Your task to perform on an android device: open app "TextNow: Call + Text Unlimited" Image 0: 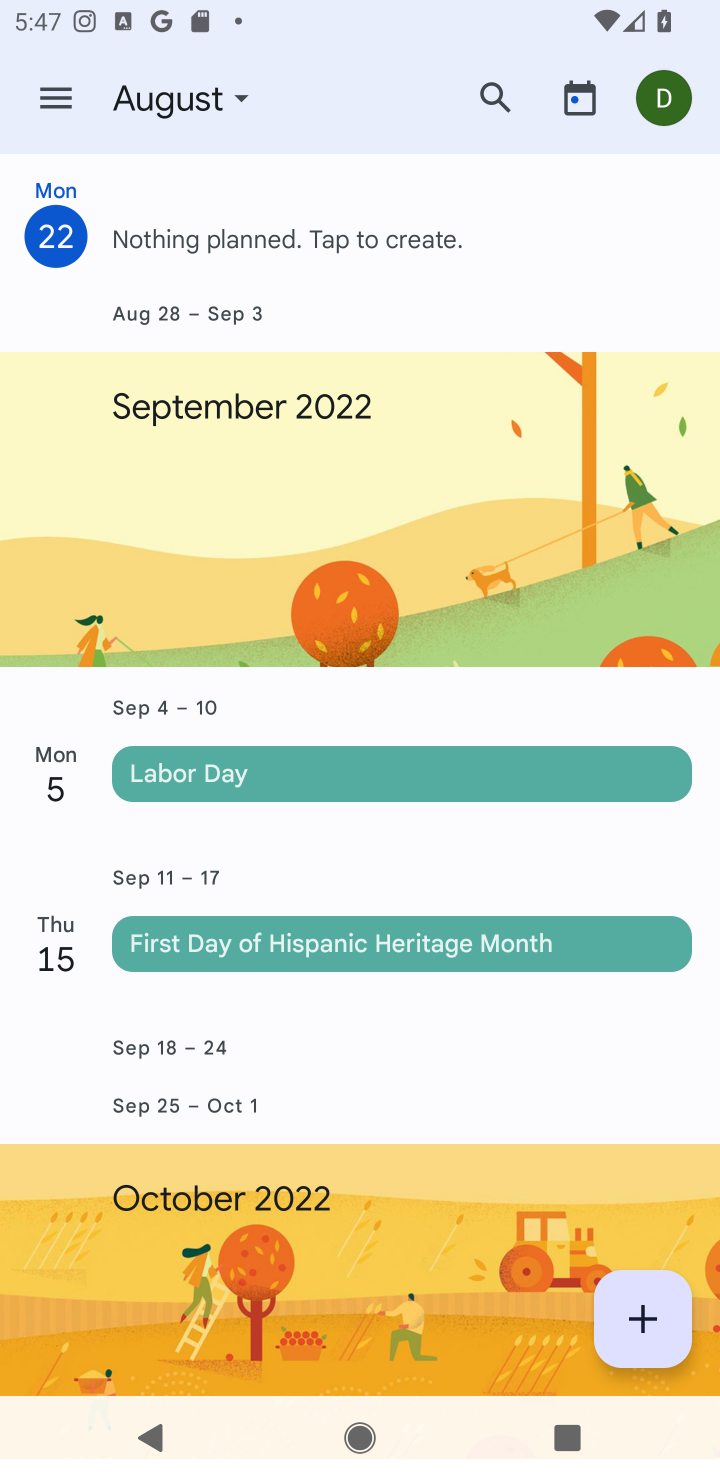
Step 0: press home button
Your task to perform on an android device: open app "TextNow: Call + Text Unlimited" Image 1: 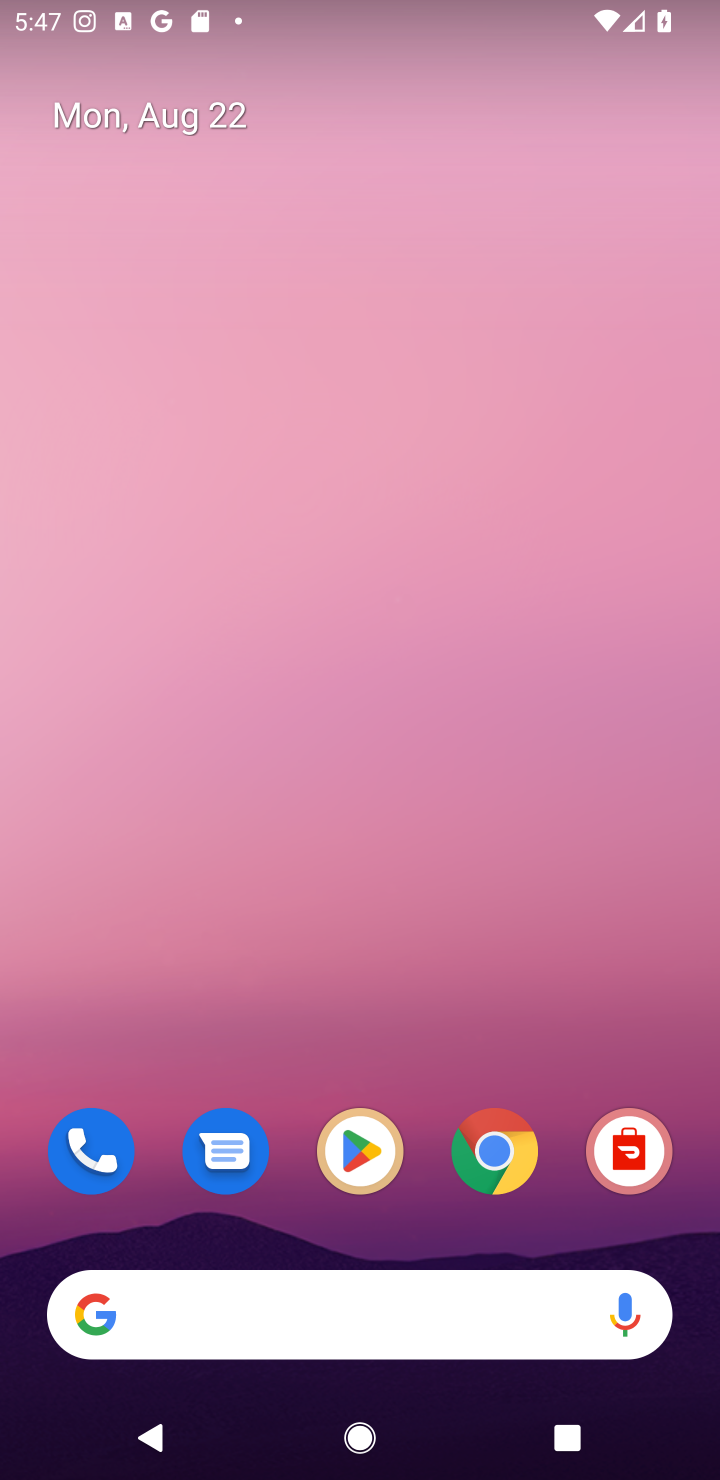
Step 1: click (352, 1155)
Your task to perform on an android device: open app "TextNow: Call + Text Unlimited" Image 2: 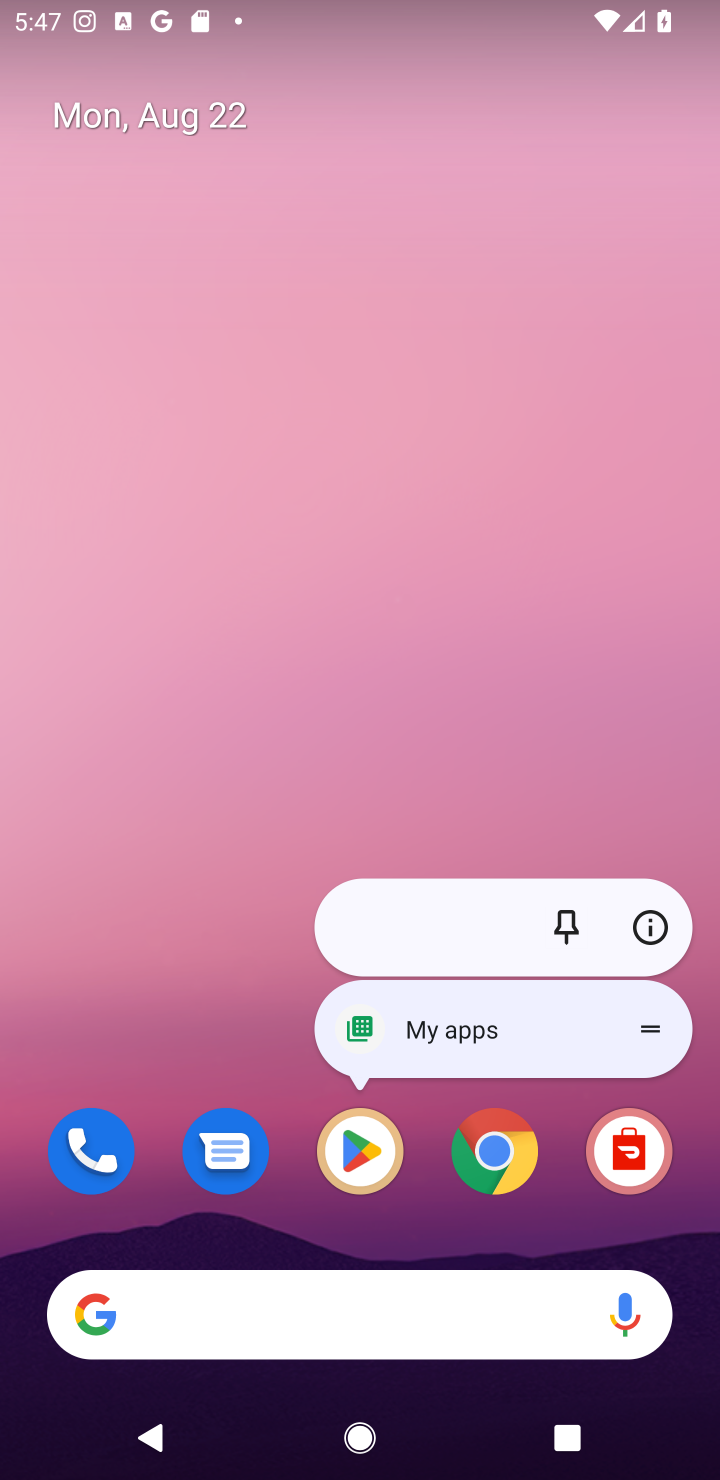
Step 2: click (338, 1161)
Your task to perform on an android device: open app "TextNow: Call + Text Unlimited" Image 3: 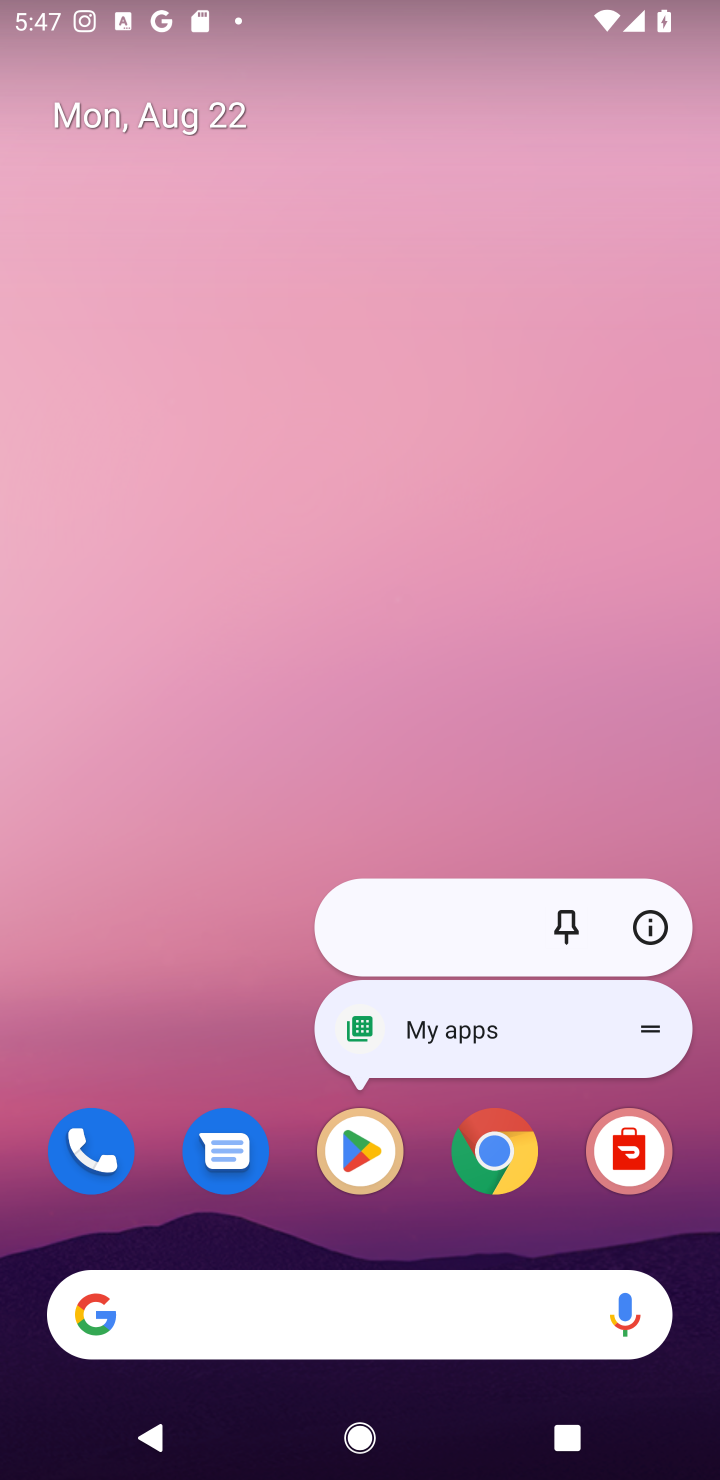
Step 3: click (350, 1157)
Your task to perform on an android device: open app "TextNow: Call + Text Unlimited" Image 4: 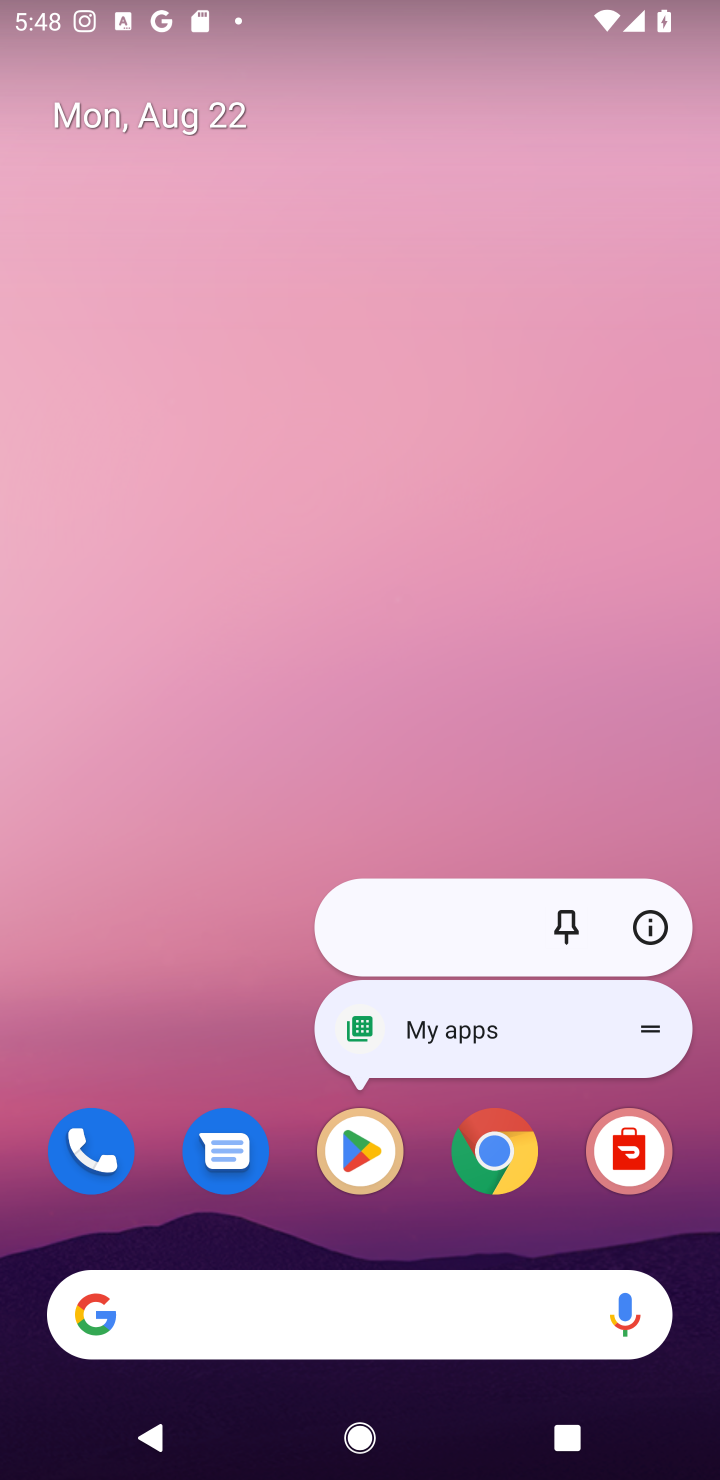
Step 4: click (350, 1159)
Your task to perform on an android device: open app "TextNow: Call + Text Unlimited" Image 5: 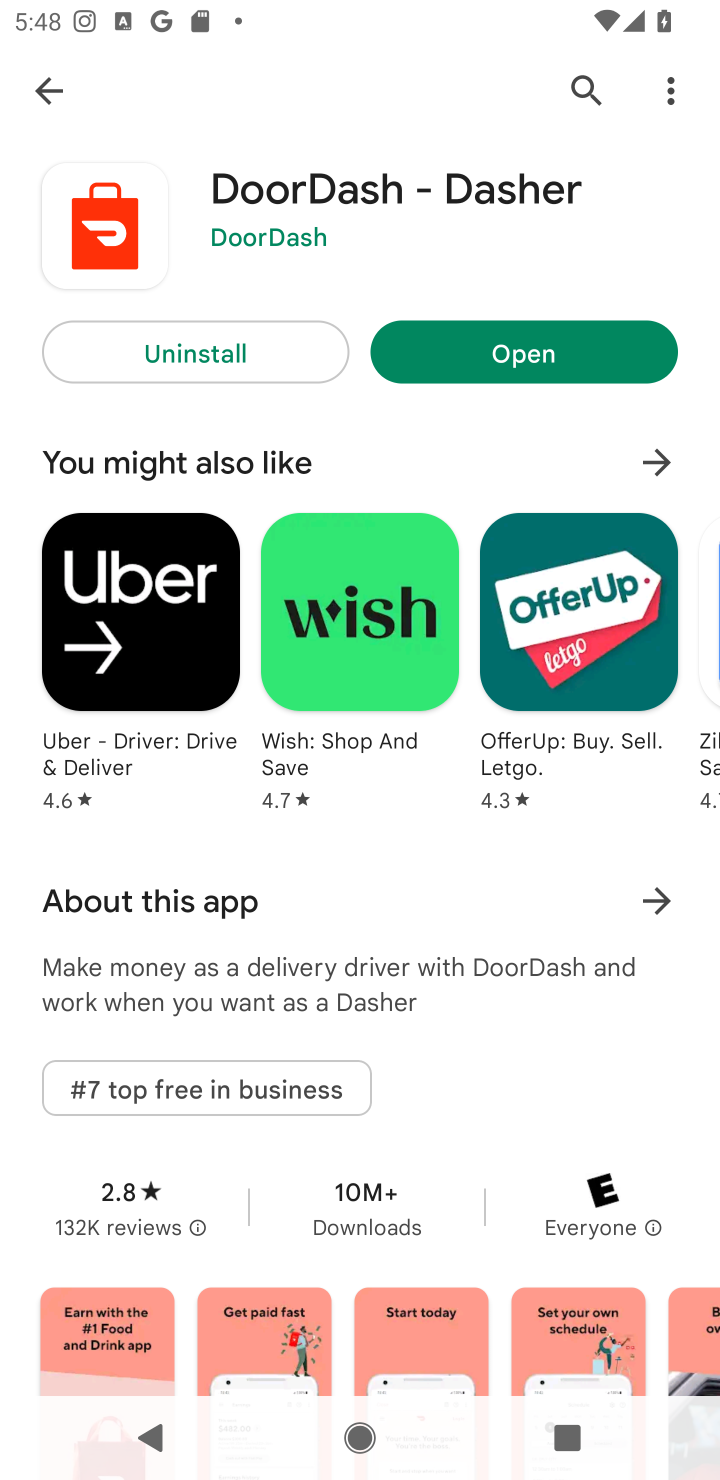
Step 5: click (579, 82)
Your task to perform on an android device: open app "TextNow: Call + Text Unlimited" Image 6: 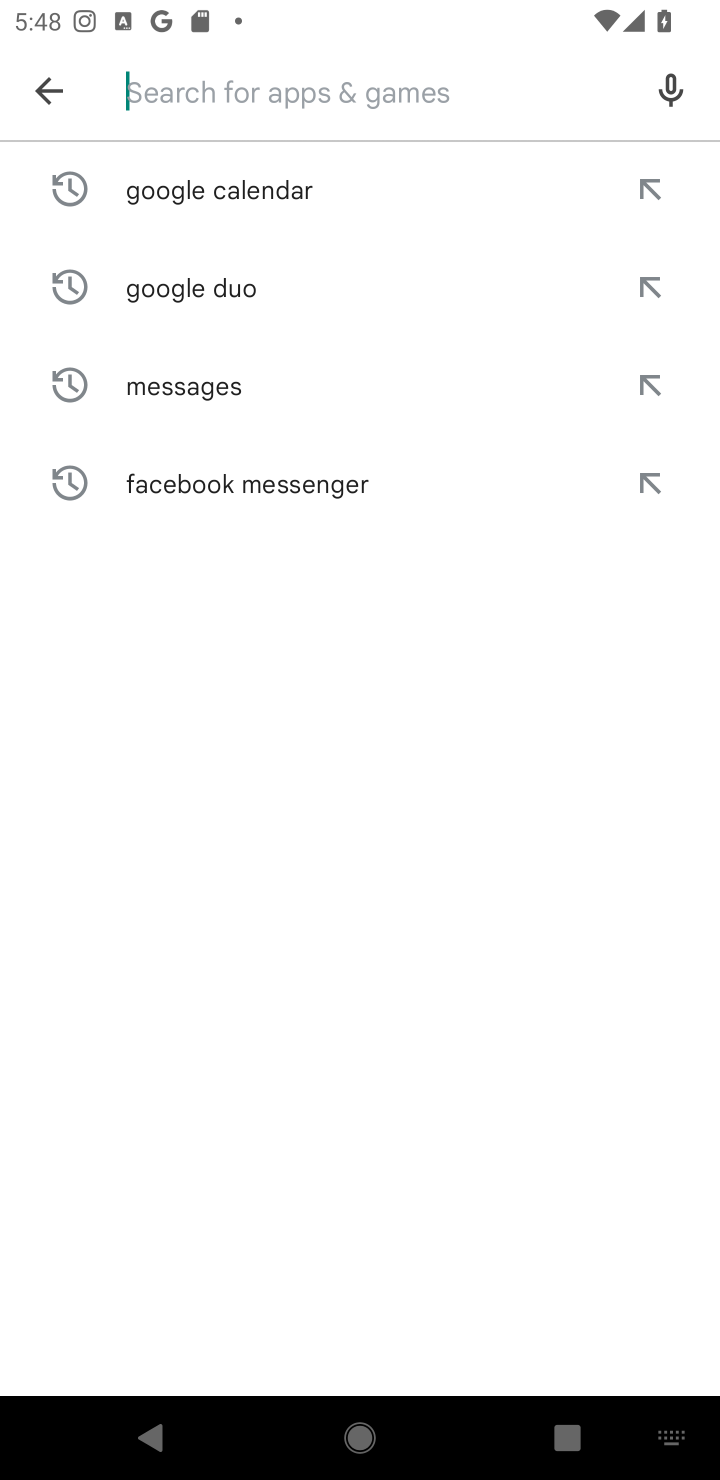
Step 6: type "TextNow: Call + Text Unlimited"
Your task to perform on an android device: open app "TextNow: Call + Text Unlimited" Image 7: 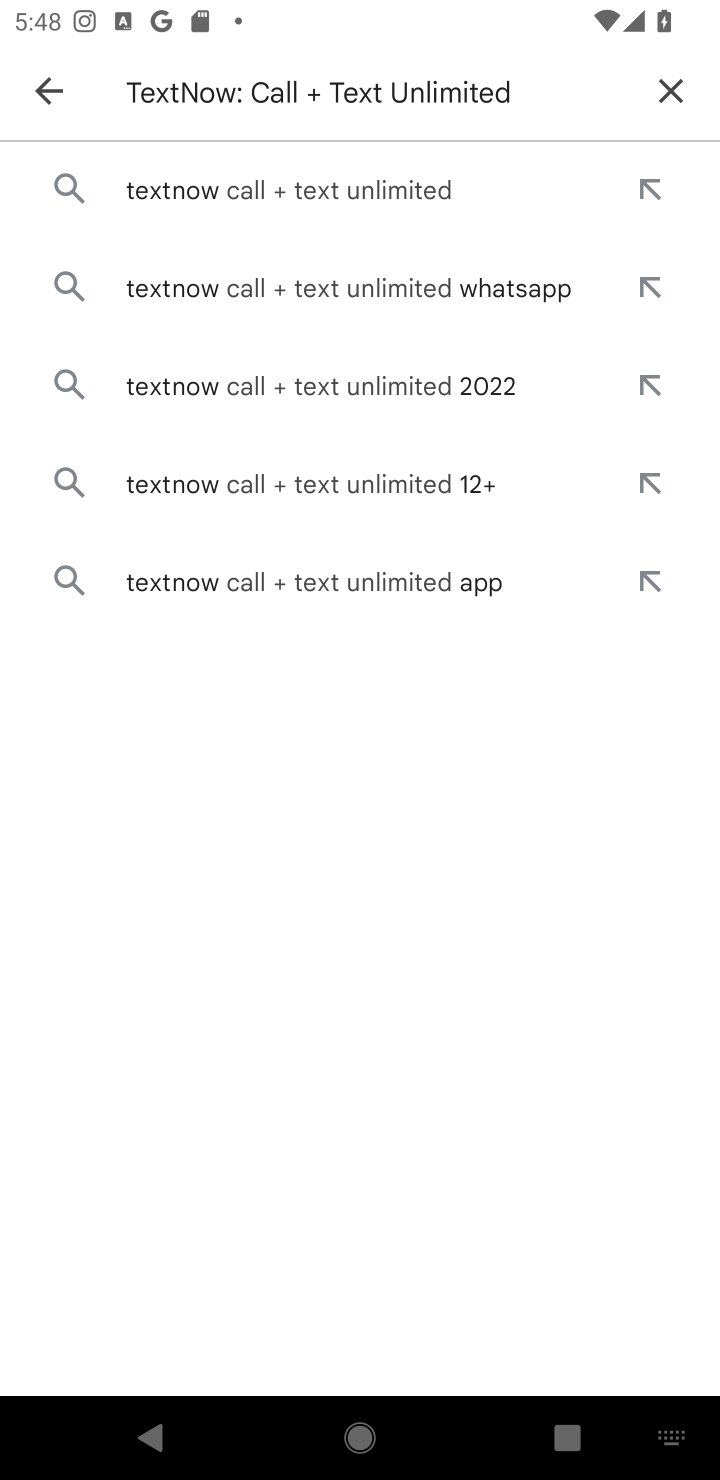
Step 7: click (362, 189)
Your task to perform on an android device: open app "TextNow: Call + Text Unlimited" Image 8: 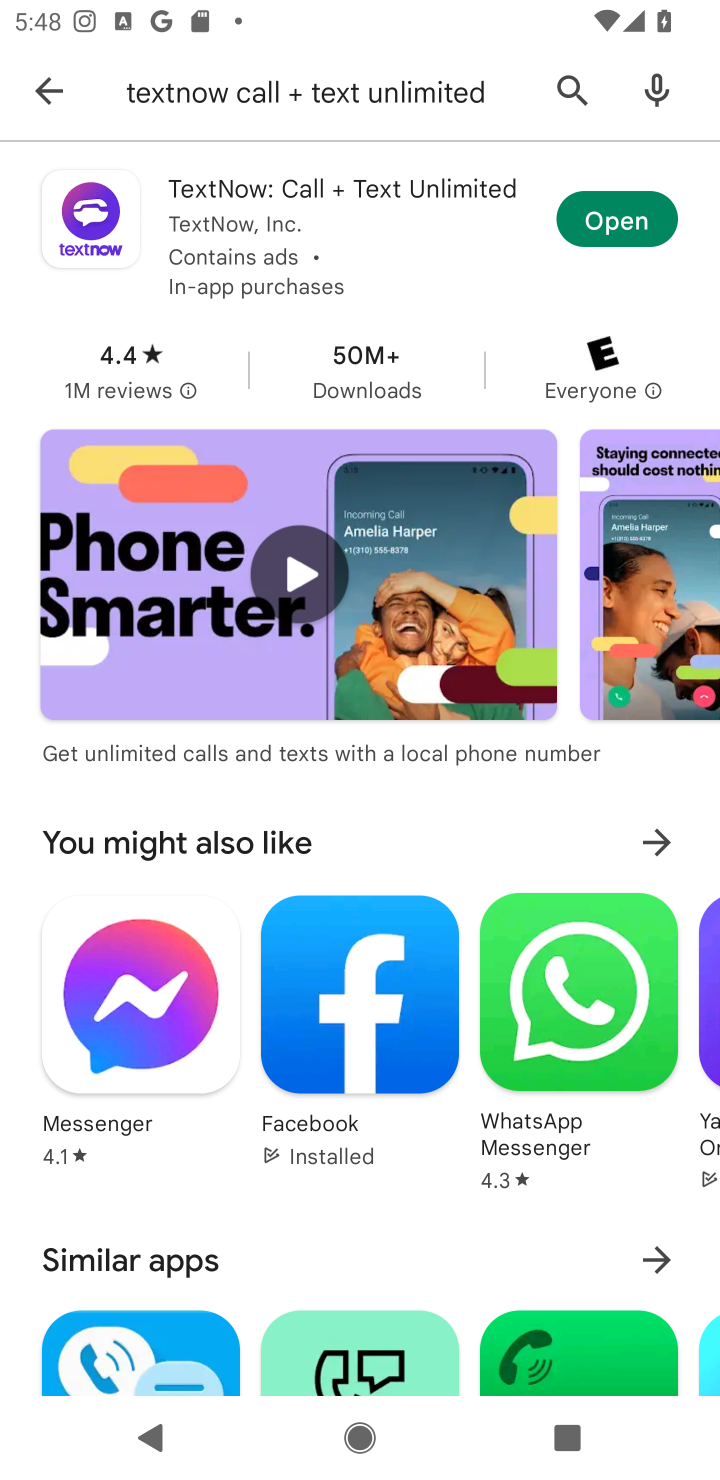
Step 8: click (592, 232)
Your task to perform on an android device: open app "TextNow: Call + Text Unlimited" Image 9: 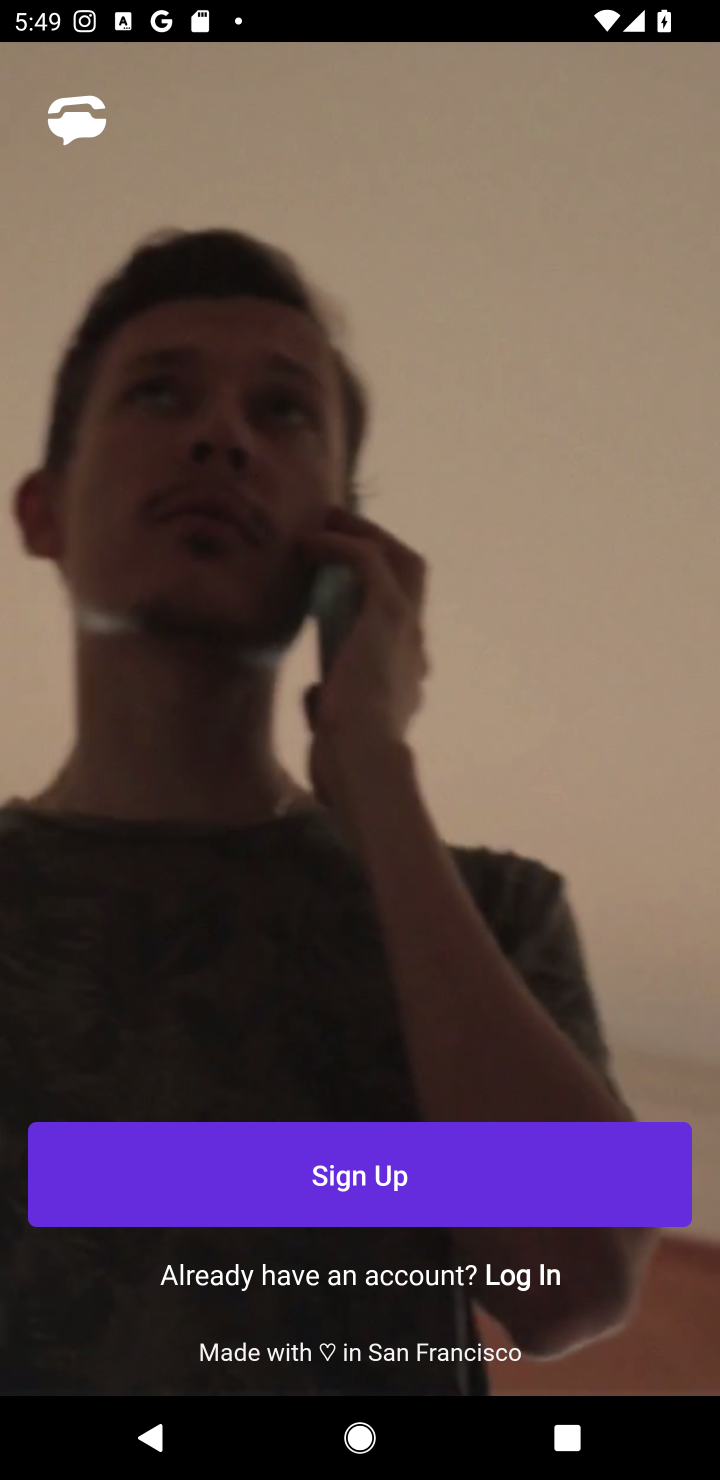
Step 9: task complete